Your task to perform on an android device: Show me popular videos on Youtube Image 0: 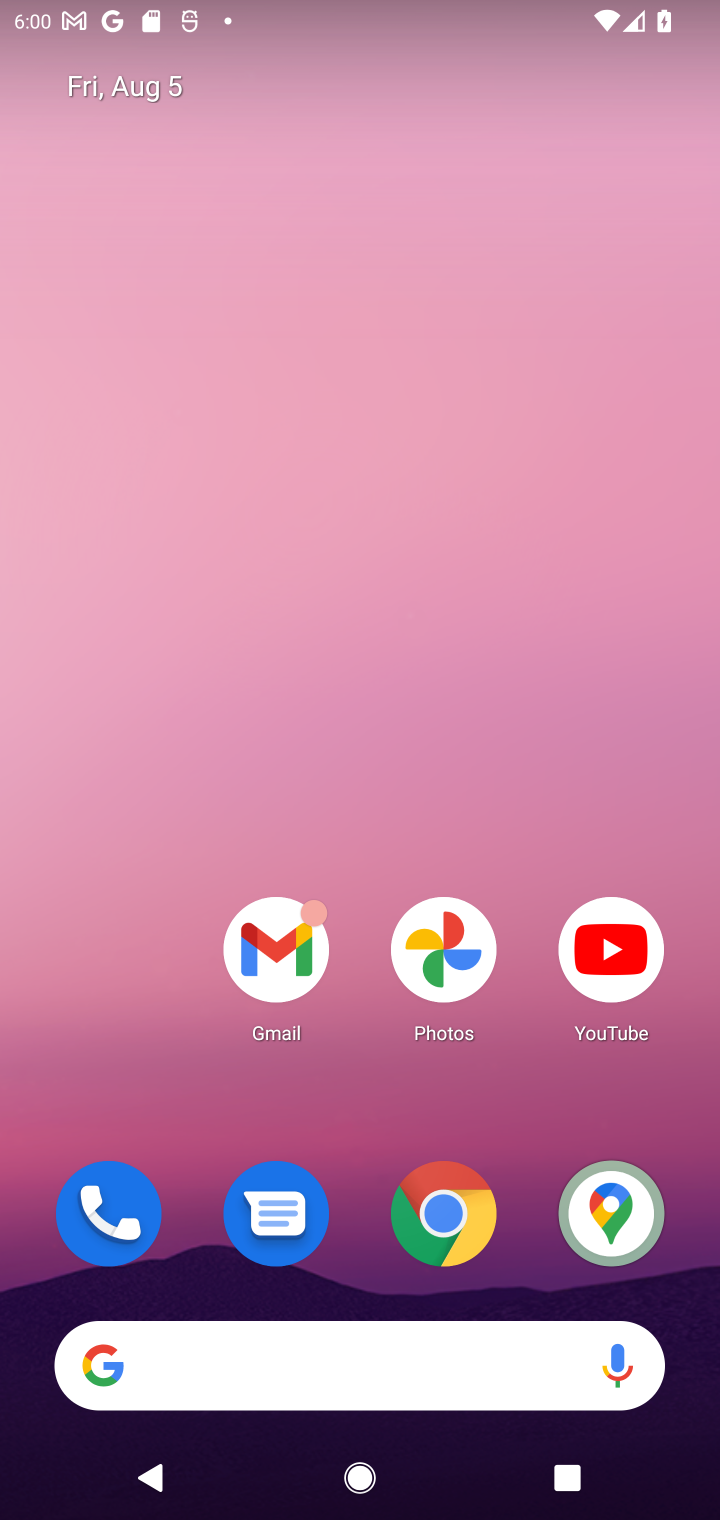
Step 0: drag from (376, 1272) to (402, 241)
Your task to perform on an android device: Show me popular videos on Youtube Image 1: 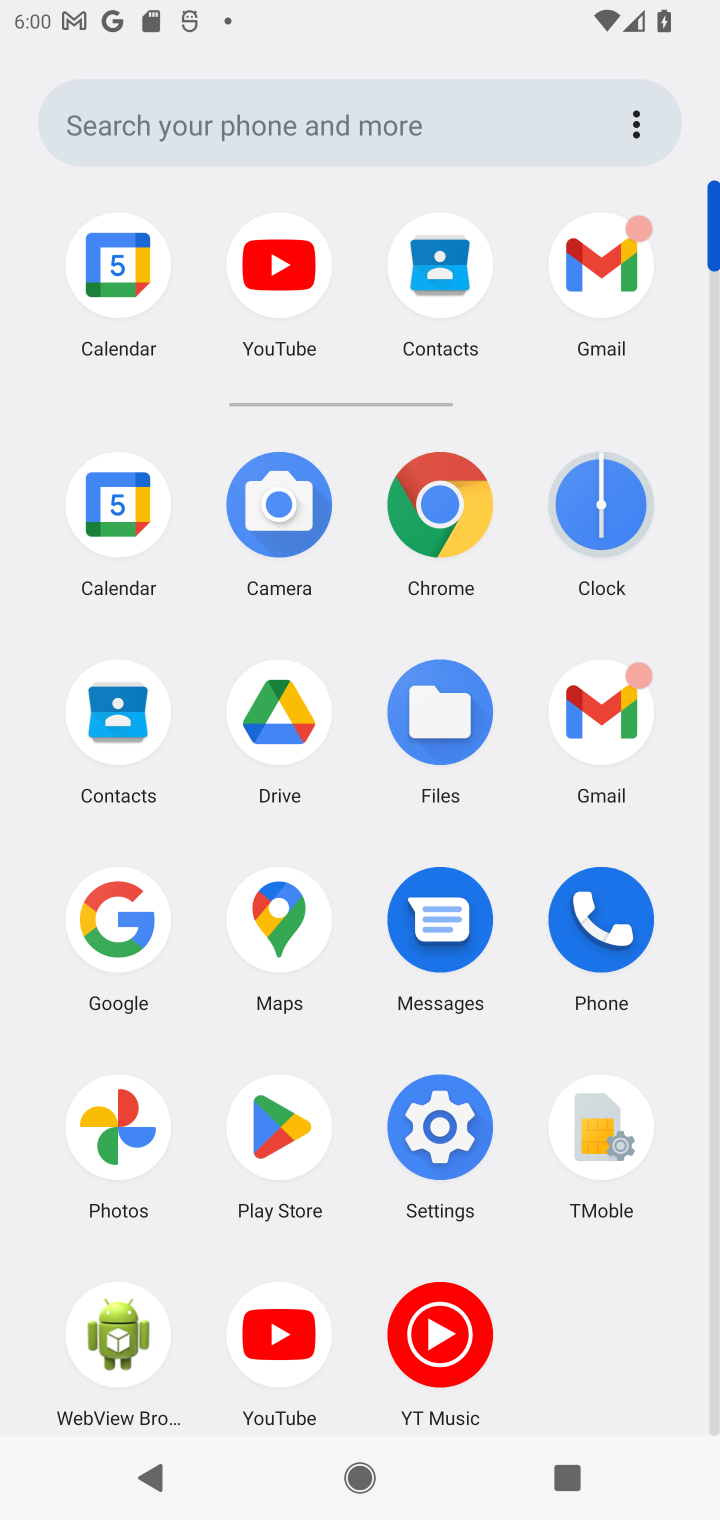
Step 1: click (306, 1390)
Your task to perform on an android device: Show me popular videos on Youtube Image 2: 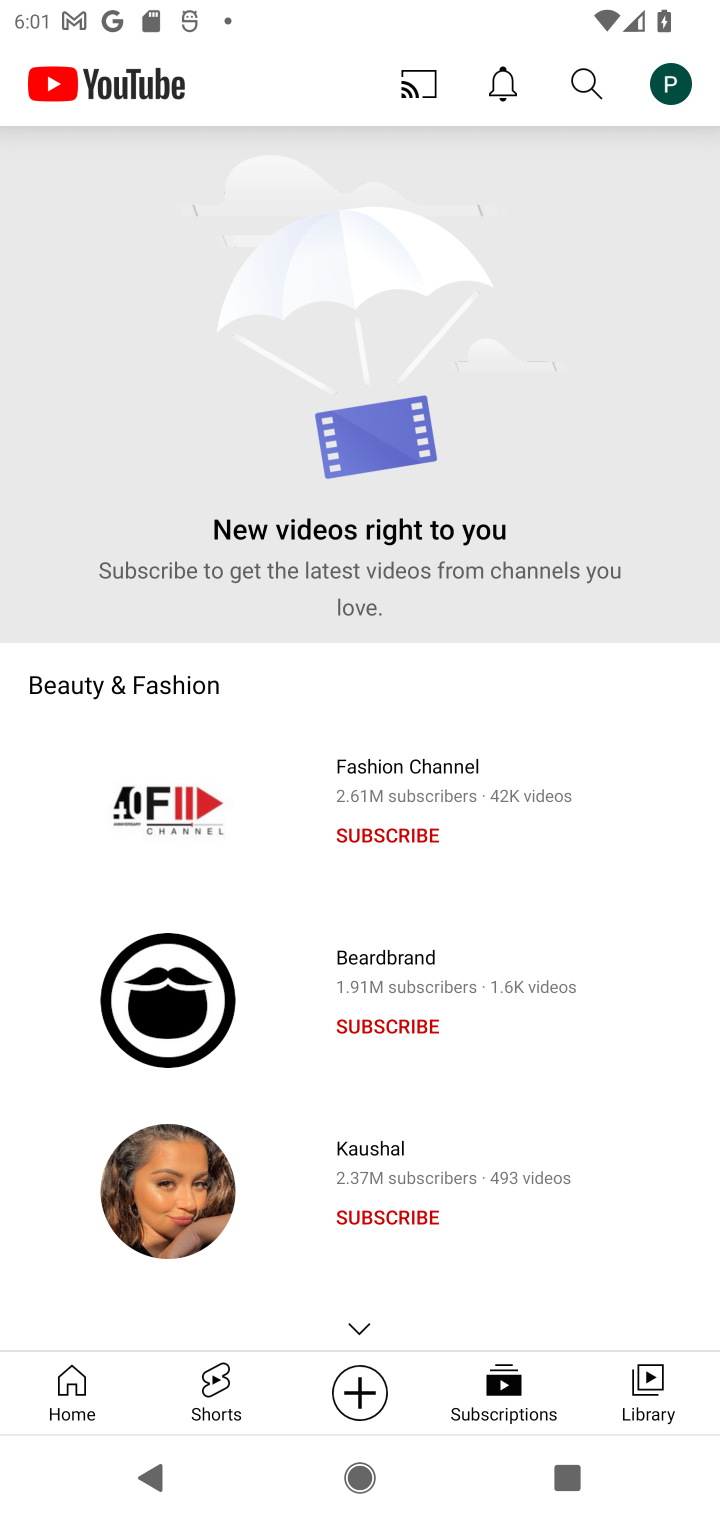
Step 2: click (48, 1413)
Your task to perform on an android device: Show me popular videos on Youtube Image 3: 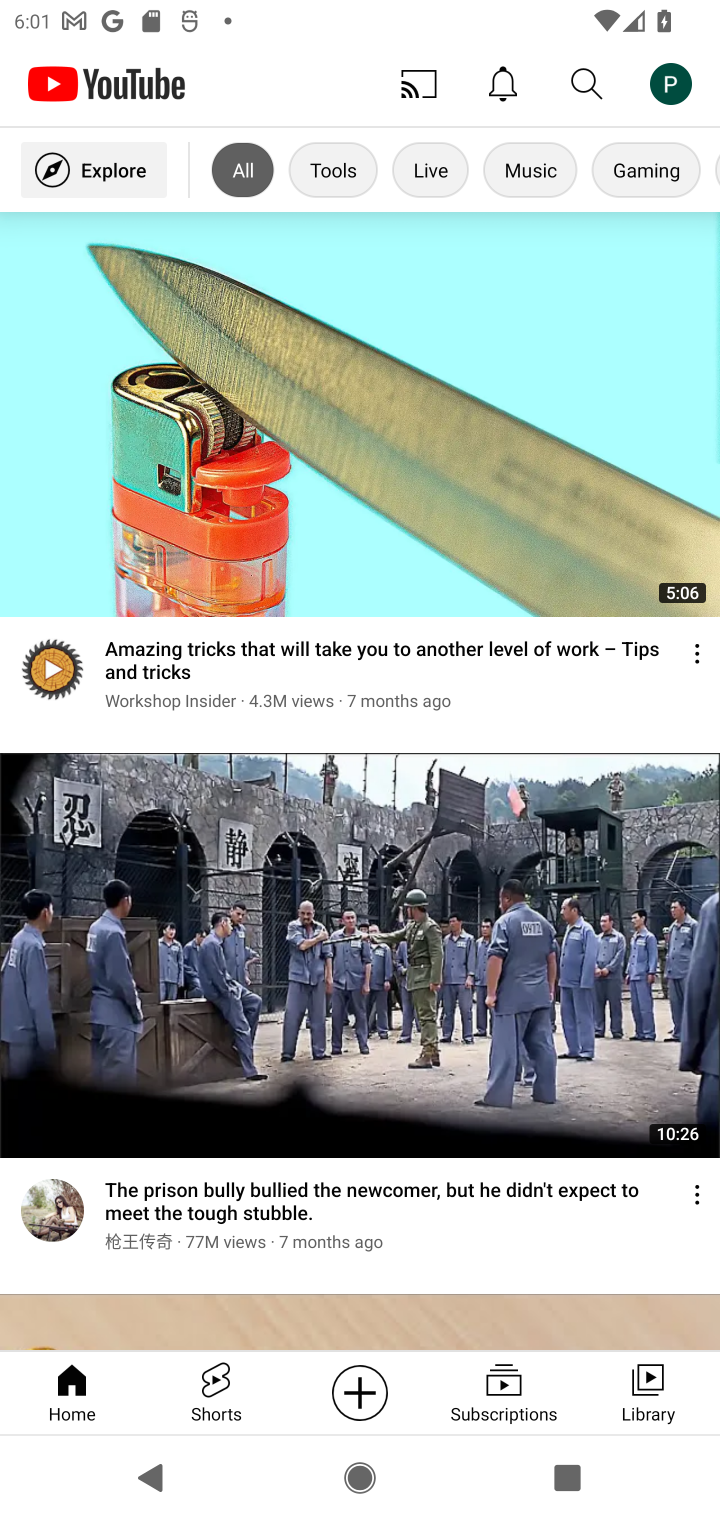
Step 3: task complete